Your task to perform on an android device: Go to Maps Image 0: 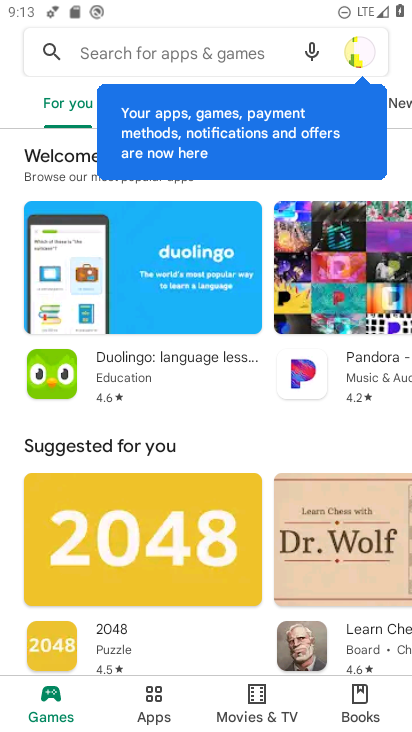
Step 0: press home button
Your task to perform on an android device: Go to Maps Image 1: 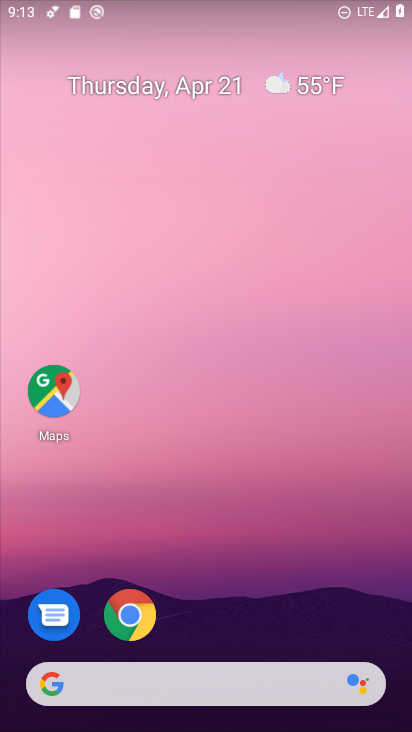
Step 1: drag from (295, 508) to (290, 86)
Your task to perform on an android device: Go to Maps Image 2: 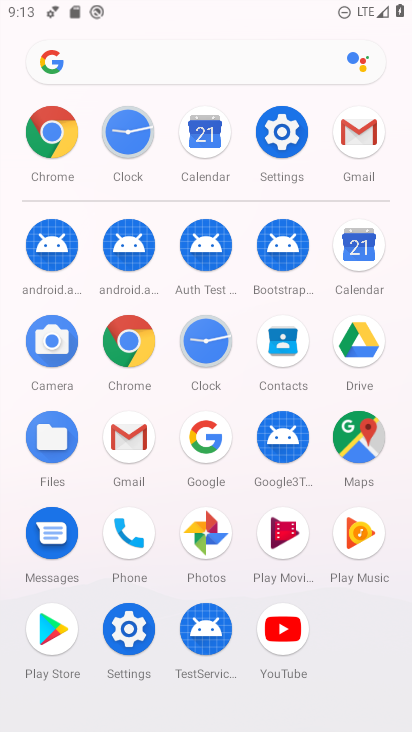
Step 2: click (354, 431)
Your task to perform on an android device: Go to Maps Image 3: 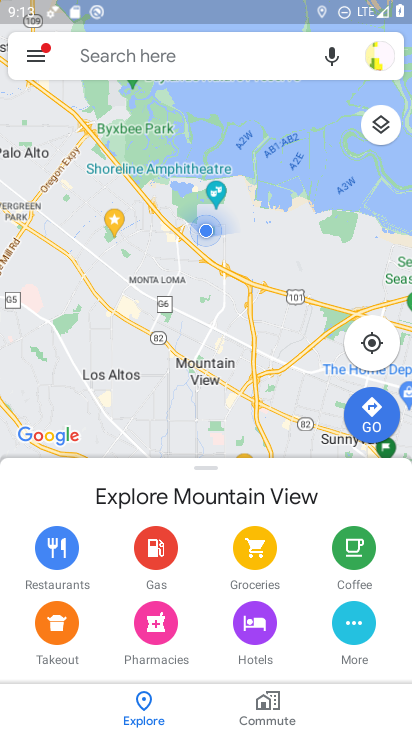
Step 3: click (155, 53)
Your task to perform on an android device: Go to Maps Image 4: 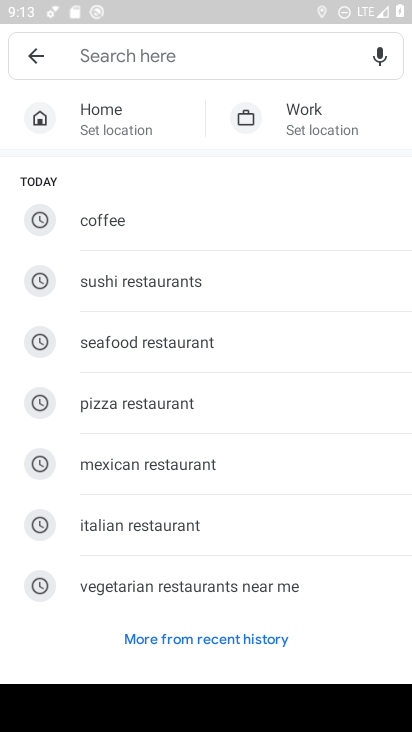
Step 4: task complete